Your task to perform on an android device: turn off javascript in the chrome app Image 0: 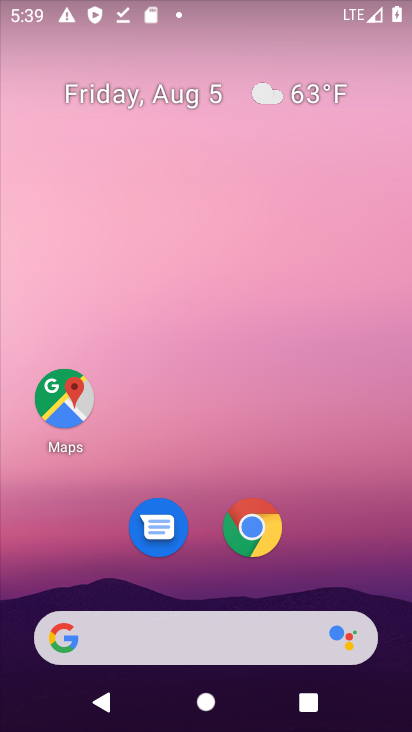
Step 0: drag from (181, 460) to (236, 105)
Your task to perform on an android device: turn off javascript in the chrome app Image 1: 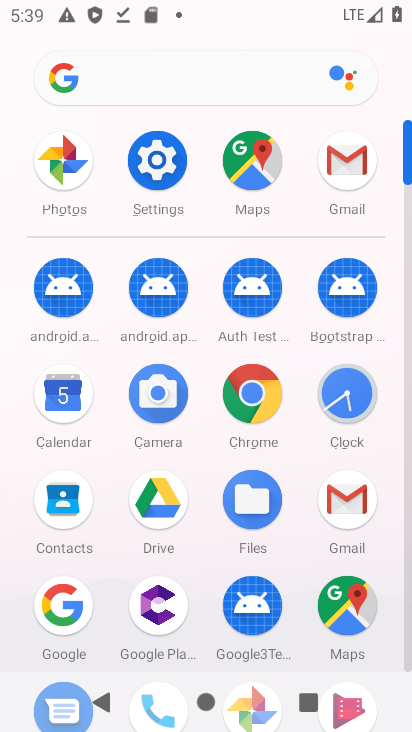
Step 1: click (244, 389)
Your task to perform on an android device: turn off javascript in the chrome app Image 2: 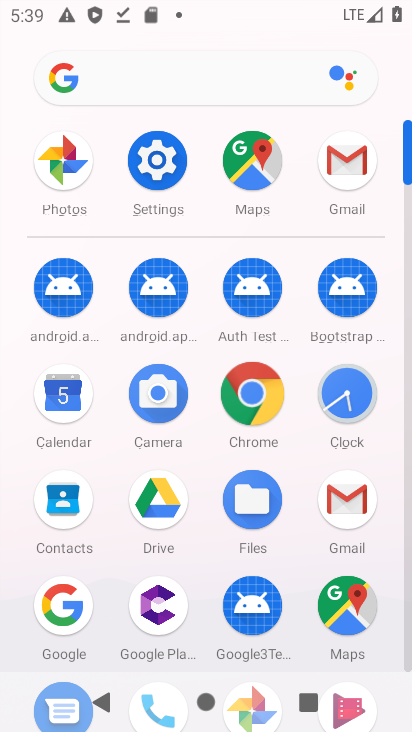
Step 2: click (248, 388)
Your task to perform on an android device: turn off javascript in the chrome app Image 3: 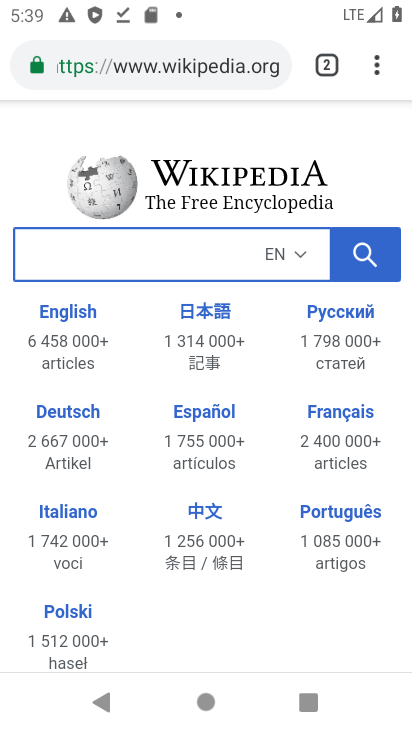
Step 3: drag from (370, 52) to (180, 567)
Your task to perform on an android device: turn off javascript in the chrome app Image 4: 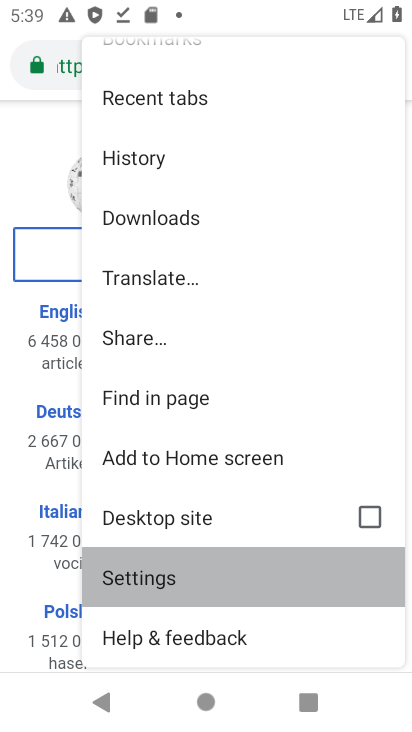
Step 4: click (180, 567)
Your task to perform on an android device: turn off javascript in the chrome app Image 5: 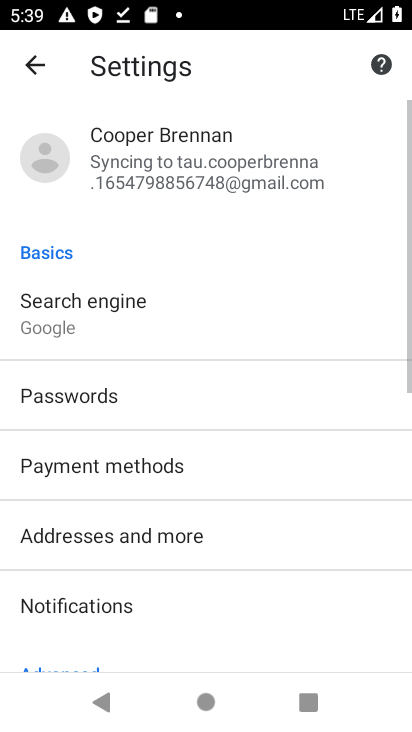
Step 5: drag from (145, 553) to (194, 115)
Your task to perform on an android device: turn off javascript in the chrome app Image 6: 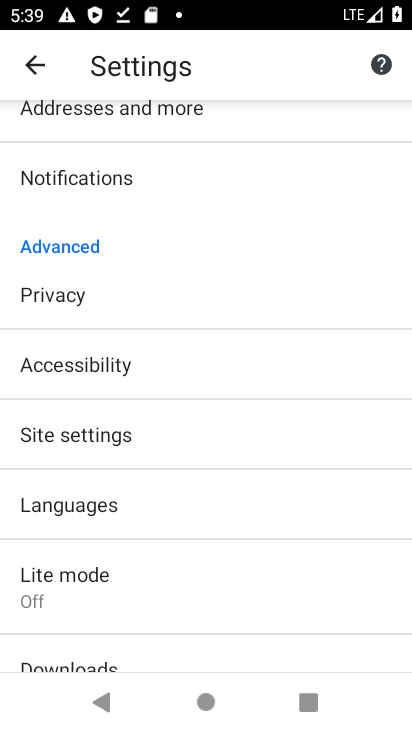
Step 6: click (126, 443)
Your task to perform on an android device: turn off javascript in the chrome app Image 7: 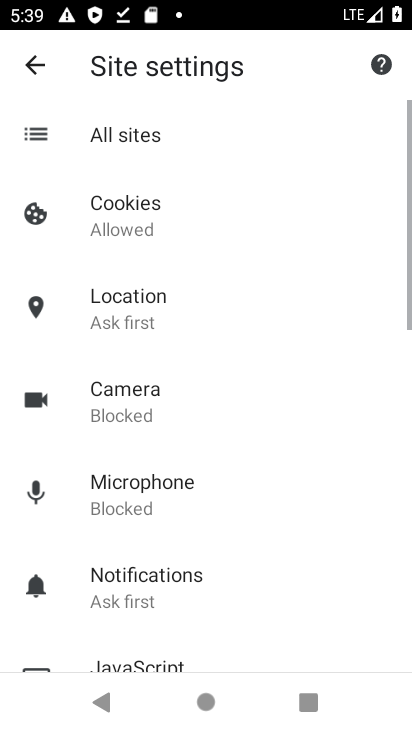
Step 7: drag from (175, 626) to (236, 229)
Your task to perform on an android device: turn off javascript in the chrome app Image 8: 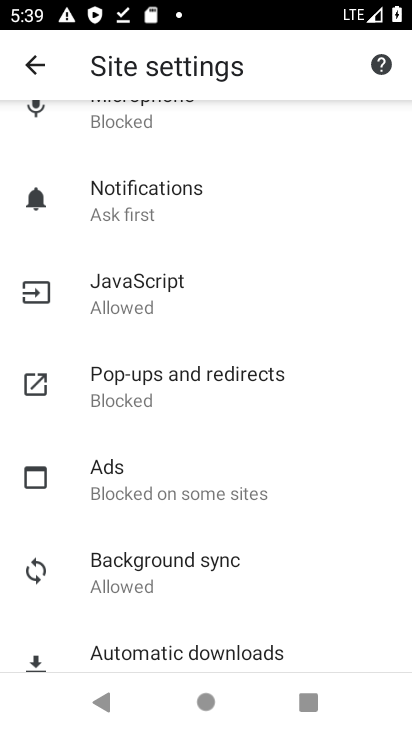
Step 8: drag from (144, 645) to (221, 265)
Your task to perform on an android device: turn off javascript in the chrome app Image 9: 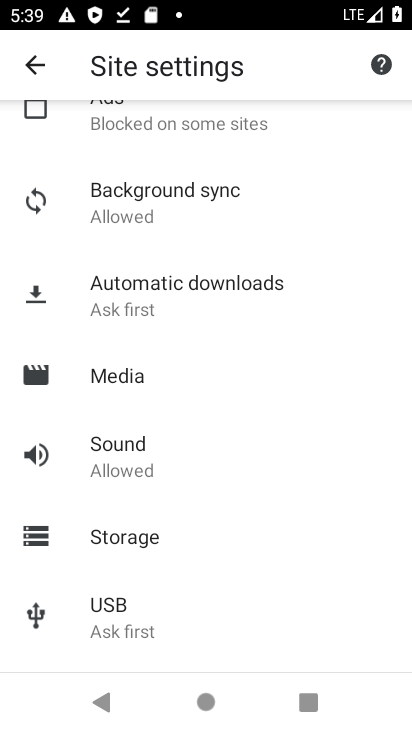
Step 9: drag from (193, 219) to (239, 494)
Your task to perform on an android device: turn off javascript in the chrome app Image 10: 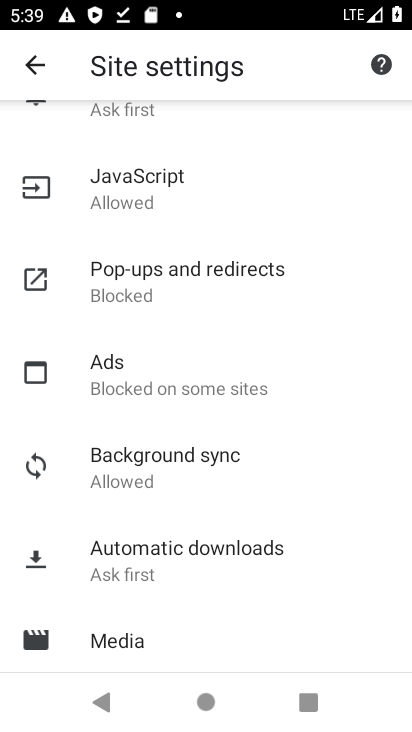
Step 10: click (145, 190)
Your task to perform on an android device: turn off javascript in the chrome app Image 11: 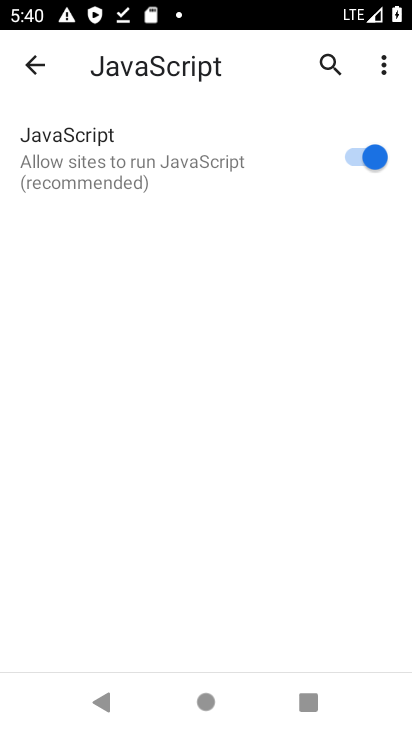
Step 11: click (353, 163)
Your task to perform on an android device: turn off javascript in the chrome app Image 12: 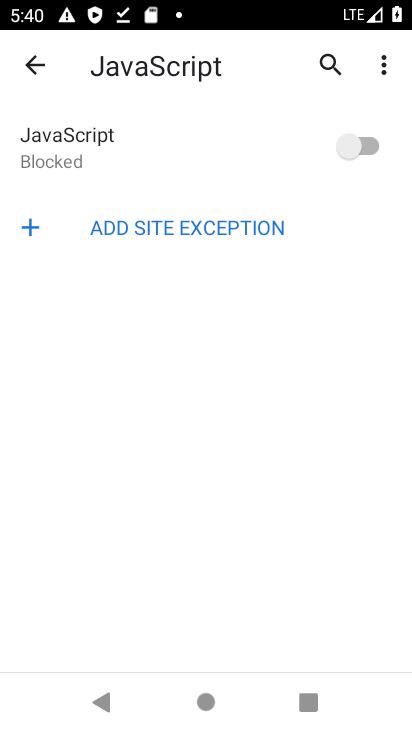
Step 12: task complete